Your task to perform on an android device: Go to wifi settings Image 0: 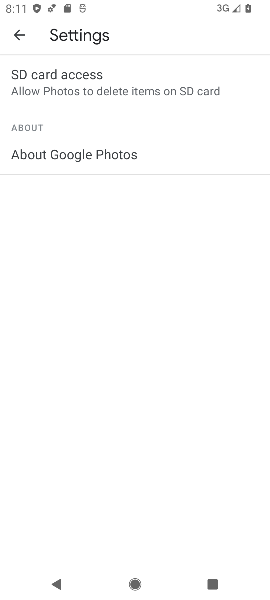
Step 0: press home button
Your task to perform on an android device: Go to wifi settings Image 1: 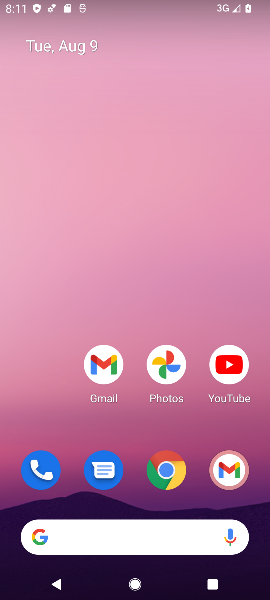
Step 1: drag from (92, 547) to (116, 140)
Your task to perform on an android device: Go to wifi settings Image 2: 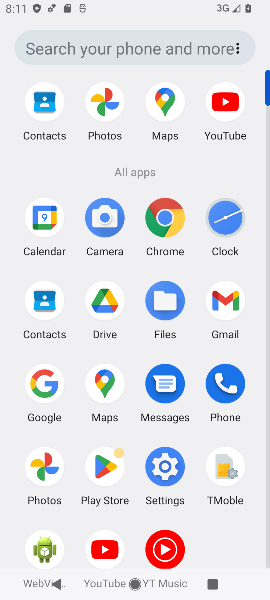
Step 2: click (162, 465)
Your task to perform on an android device: Go to wifi settings Image 3: 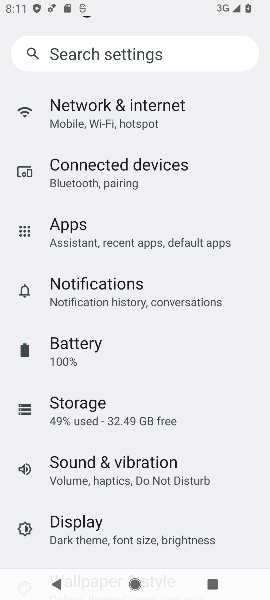
Step 3: click (121, 115)
Your task to perform on an android device: Go to wifi settings Image 4: 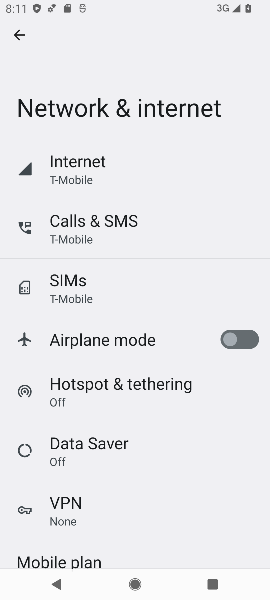
Step 4: click (78, 179)
Your task to perform on an android device: Go to wifi settings Image 5: 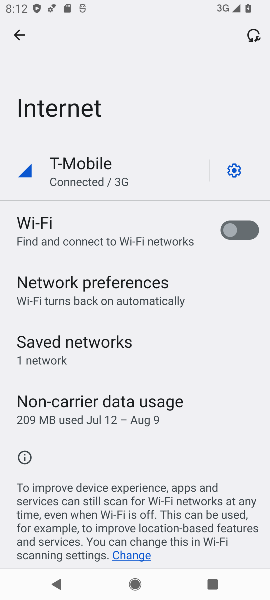
Step 5: task complete